Your task to perform on an android device: Open calendar and show me the third week of next month Image 0: 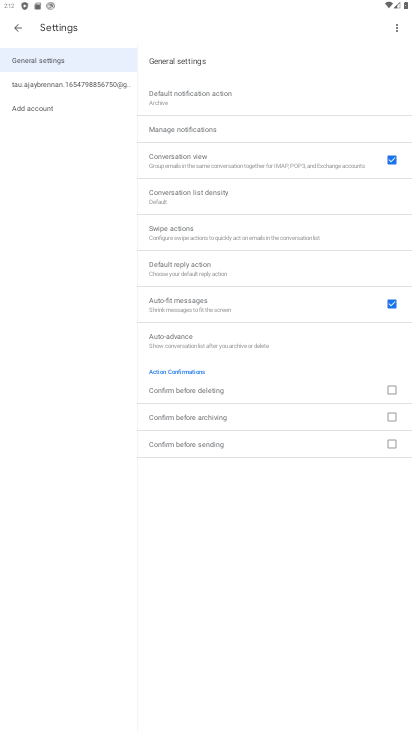
Step 0: press home button
Your task to perform on an android device: Open calendar and show me the third week of next month Image 1: 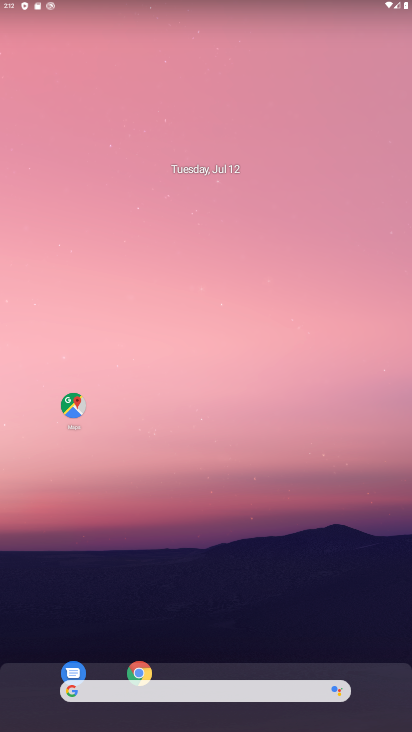
Step 1: drag from (240, 648) to (271, 87)
Your task to perform on an android device: Open calendar and show me the third week of next month Image 2: 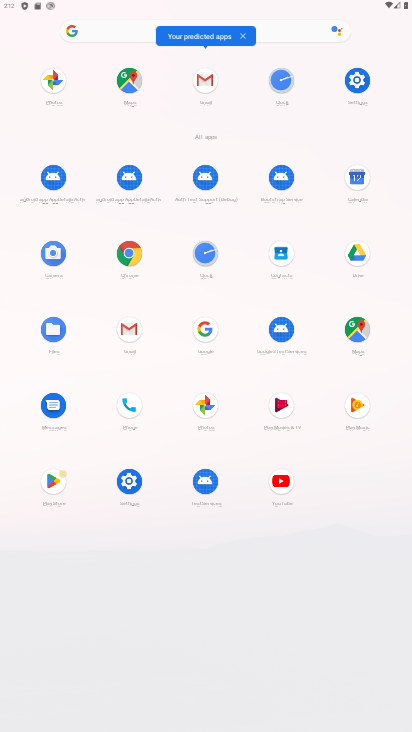
Step 2: click (357, 178)
Your task to perform on an android device: Open calendar and show me the third week of next month Image 3: 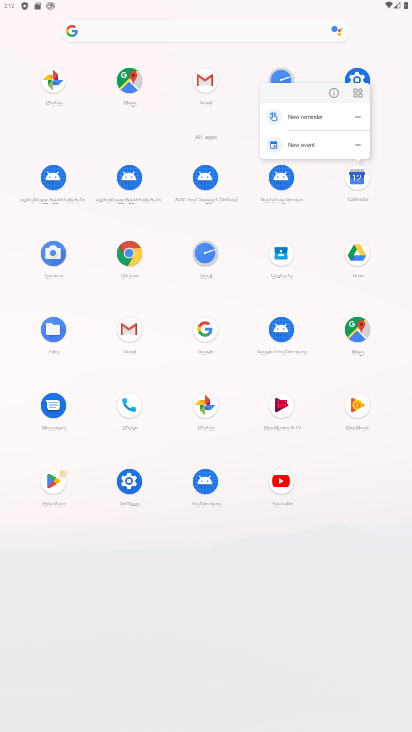
Step 3: click (358, 176)
Your task to perform on an android device: Open calendar and show me the third week of next month Image 4: 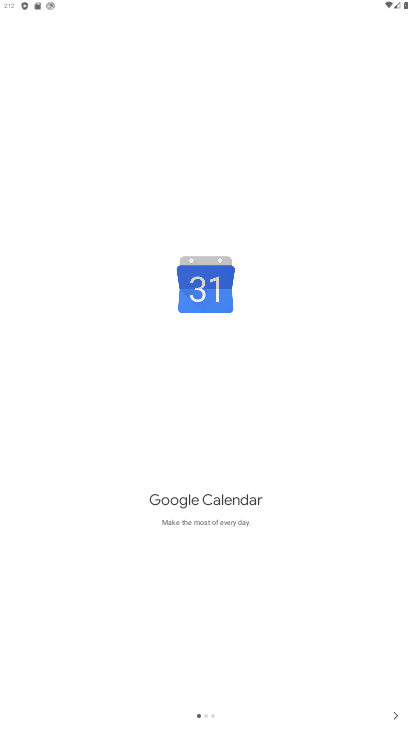
Step 4: click (395, 711)
Your task to perform on an android device: Open calendar and show me the third week of next month Image 5: 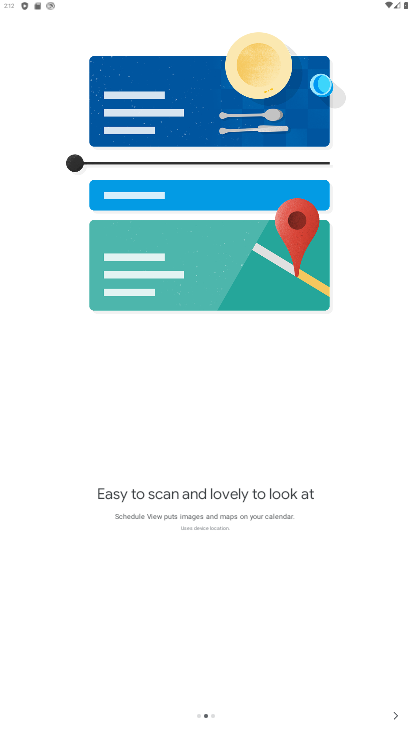
Step 5: click (395, 711)
Your task to perform on an android device: Open calendar and show me the third week of next month Image 6: 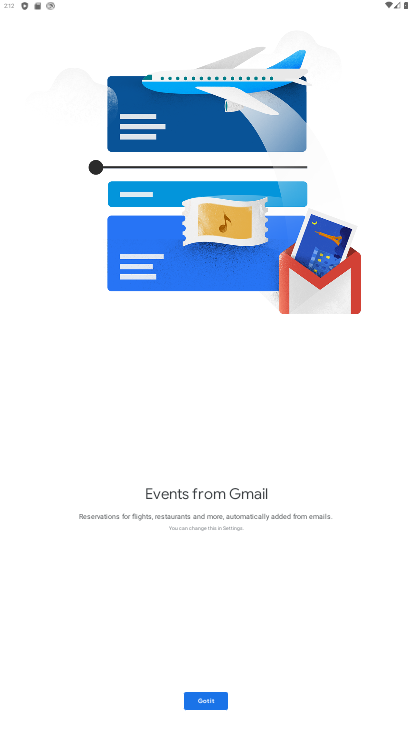
Step 6: click (204, 701)
Your task to perform on an android device: Open calendar and show me the third week of next month Image 7: 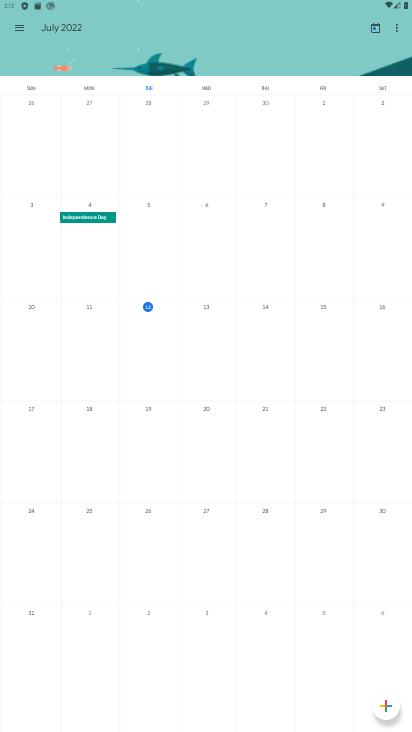
Step 7: drag from (381, 559) to (21, 534)
Your task to perform on an android device: Open calendar and show me the third week of next month Image 8: 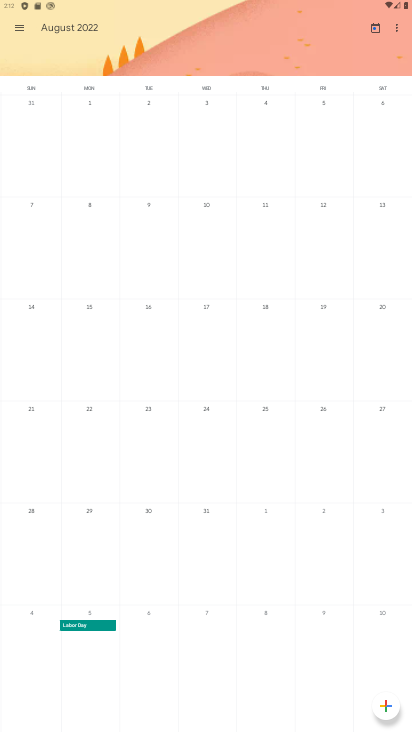
Step 8: click (320, 330)
Your task to perform on an android device: Open calendar and show me the third week of next month Image 9: 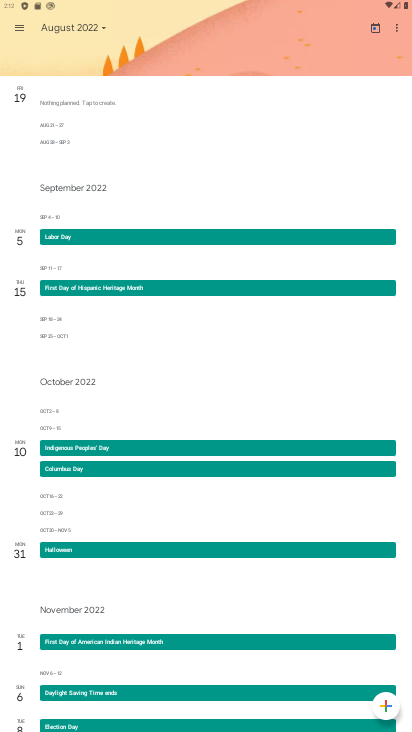
Step 9: task complete